Your task to perform on an android device: open app "DuckDuckGo Privacy Browser" (install if not already installed) Image 0: 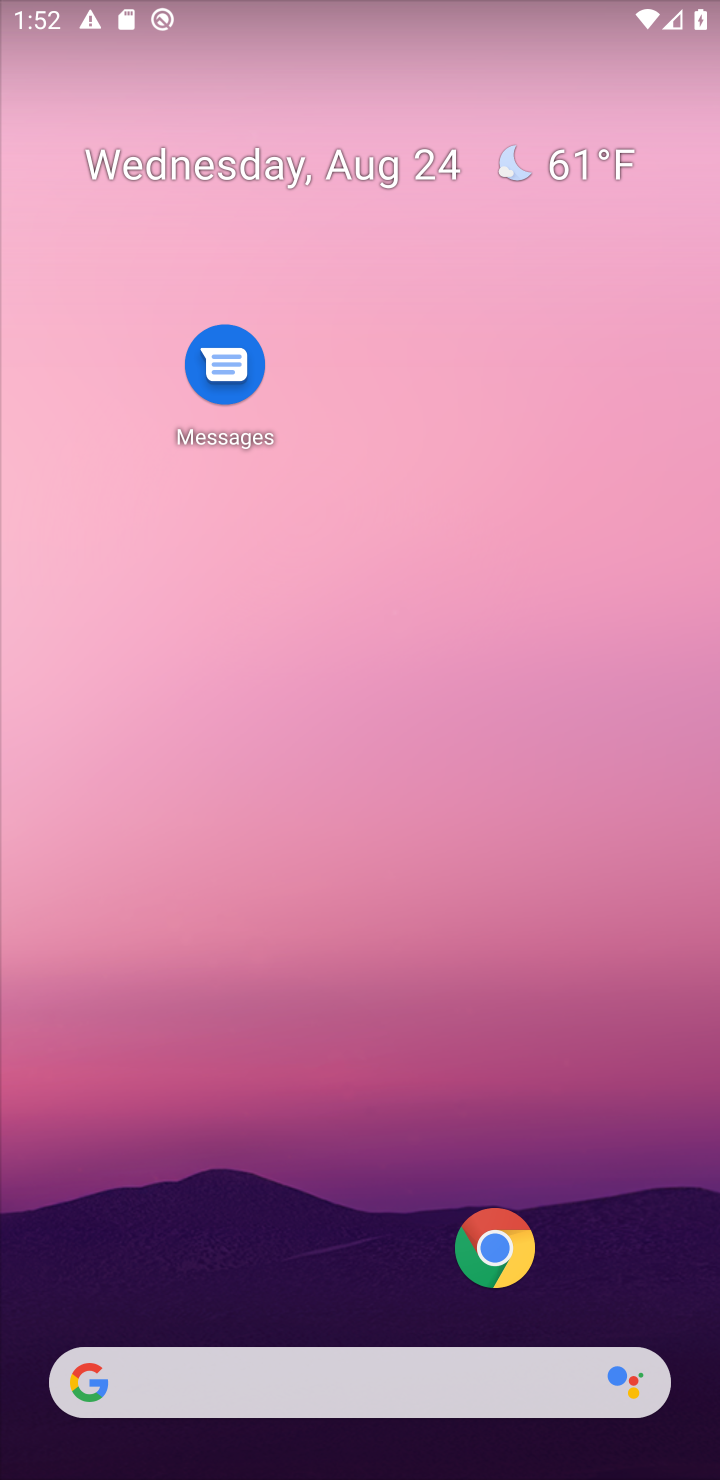
Step 0: drag from (178, 1245) to (351, 322)
Your task to perform on an android device: open app "DuckDuckGo Privacy Browser" (install if not already installed) Image 1: 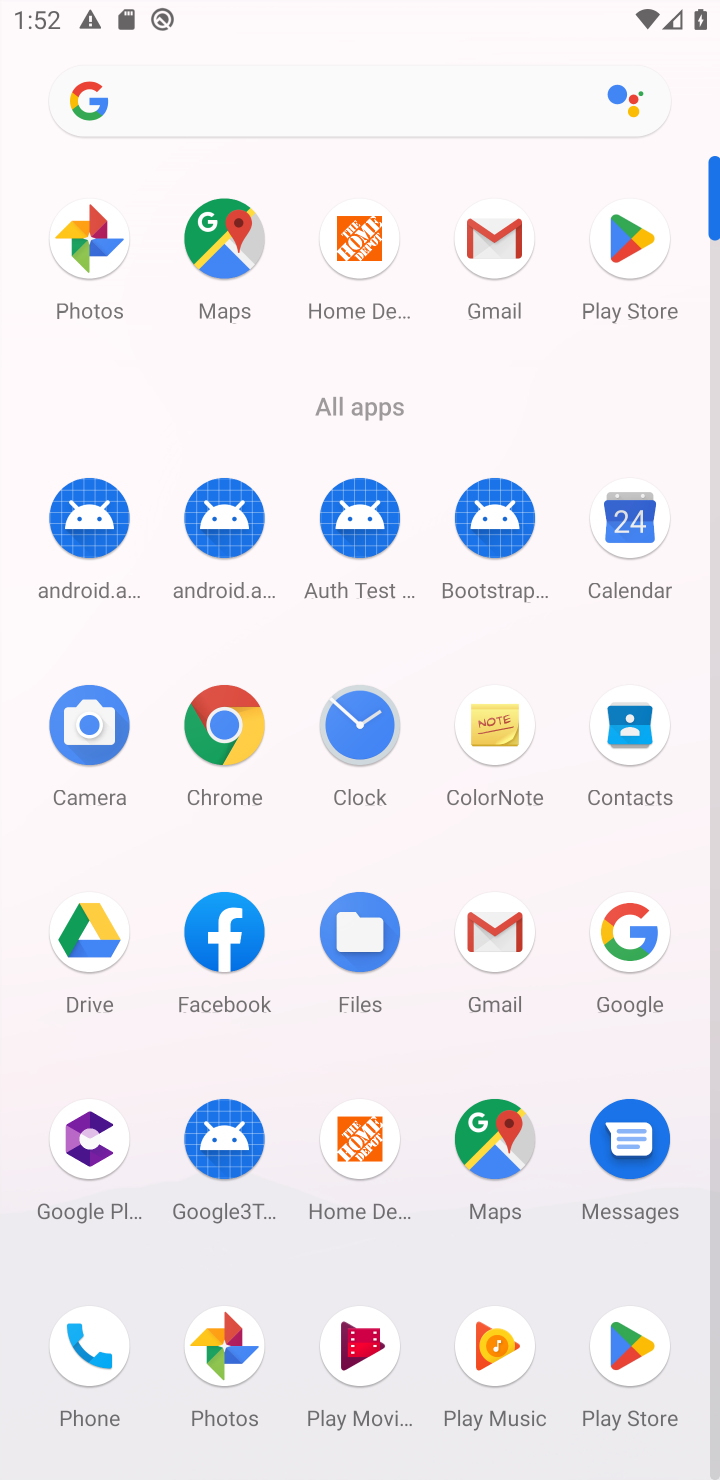
Step 1: click (628, 265)
Your task to perform on an android device: open app "DuckDuckGo Privacy Browser" (install if not already installed) Image 2: 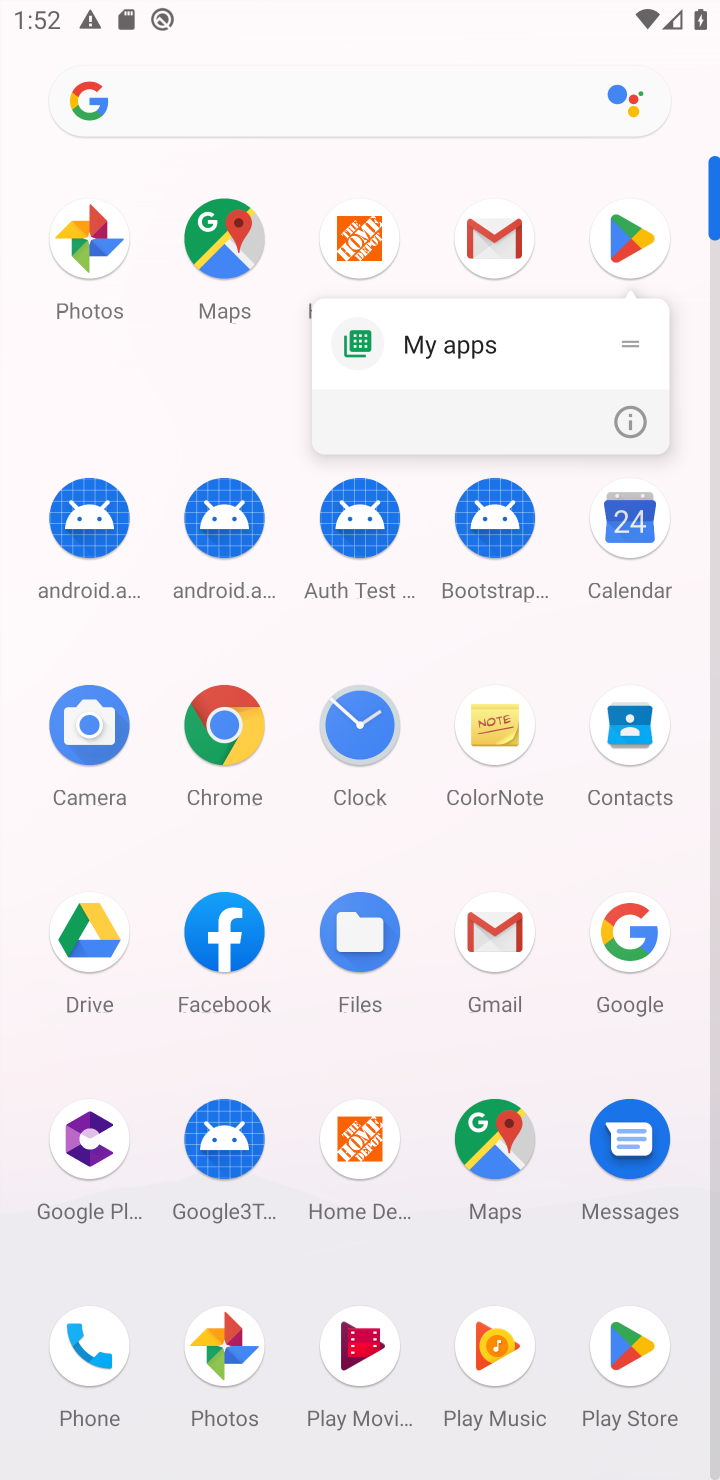
Step 2: click (611, 263)
Your task to perform on an android device: open app "DuckDuckGo Privacy Browser" (install if not already installed) Image 3: 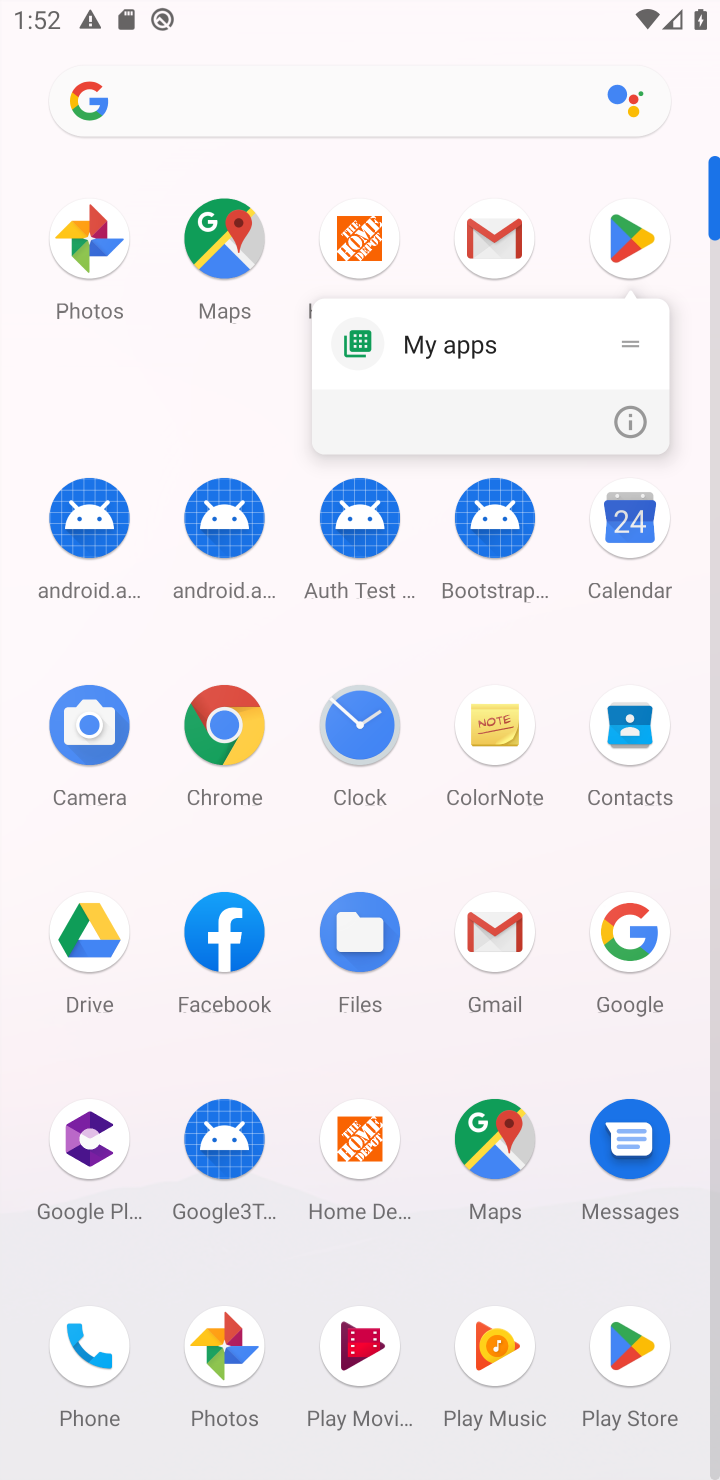
Step 3: click (619, 243)
Your task to perform on an android device: open app "DuckDuckGo Privacy Browser" (install if not already installed) Image 4: 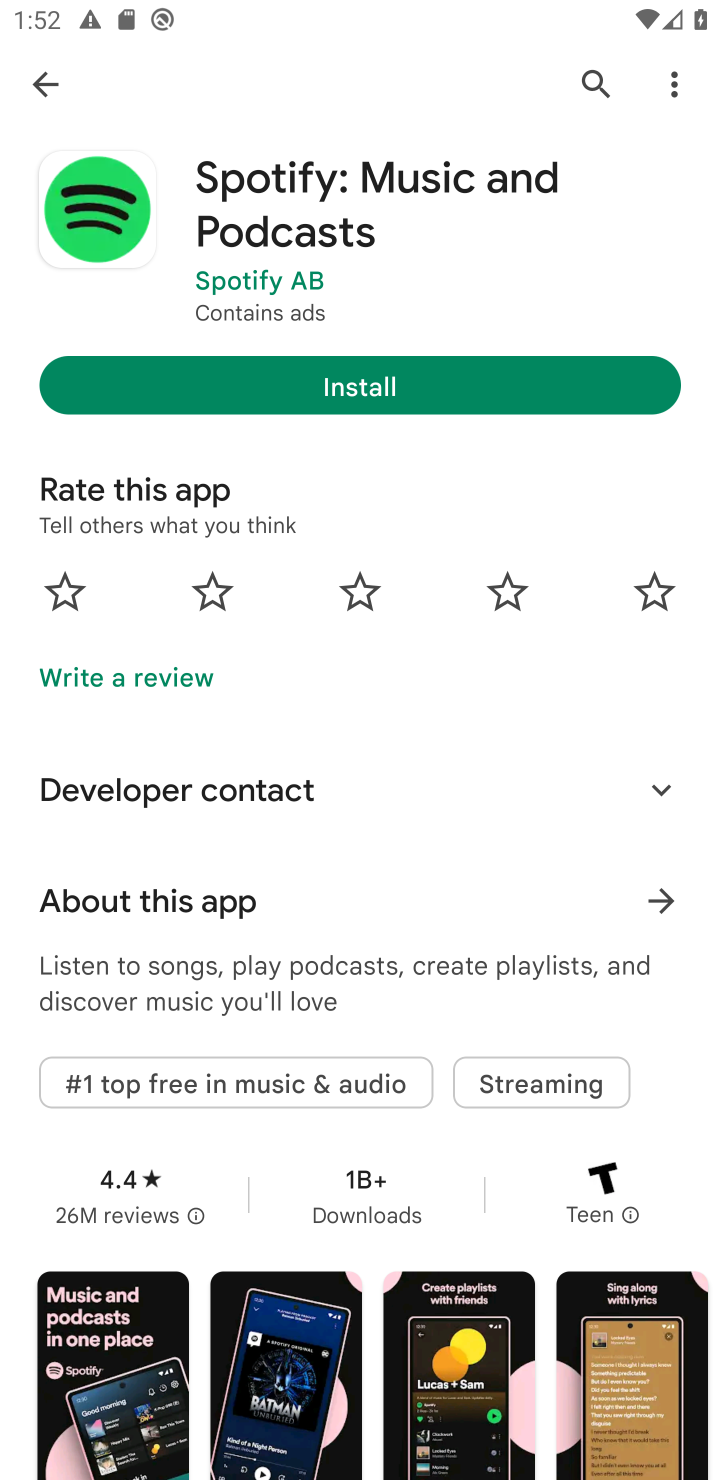
Step 4: click (53, 72)
Your task to perform on an android device: open app "DuckDuckGo Privacy Browser" (install if not already installed) Image 5: 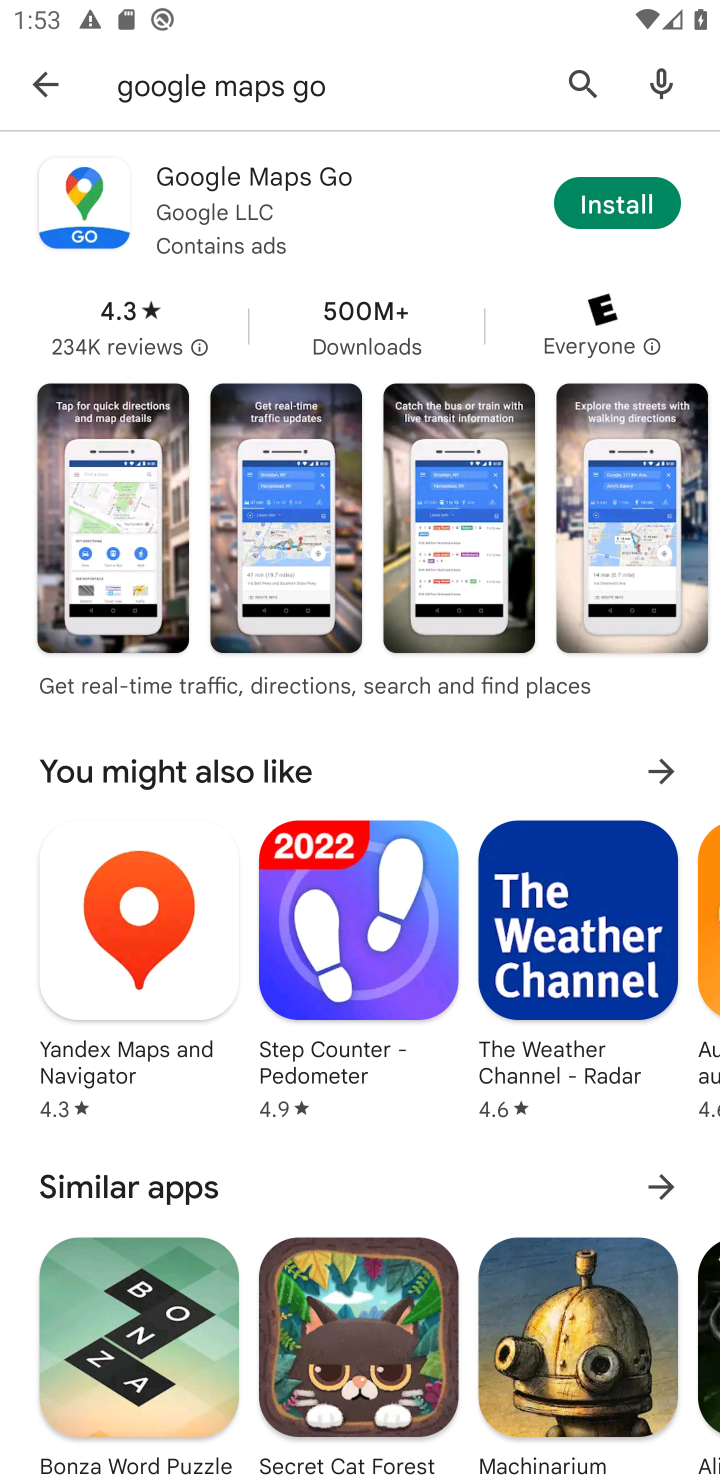
Step 5: click (577, 80)
Your task to perform on an android device: open app "DuckDuckGo Privacy Browser" (install if not already installed) Image 6: 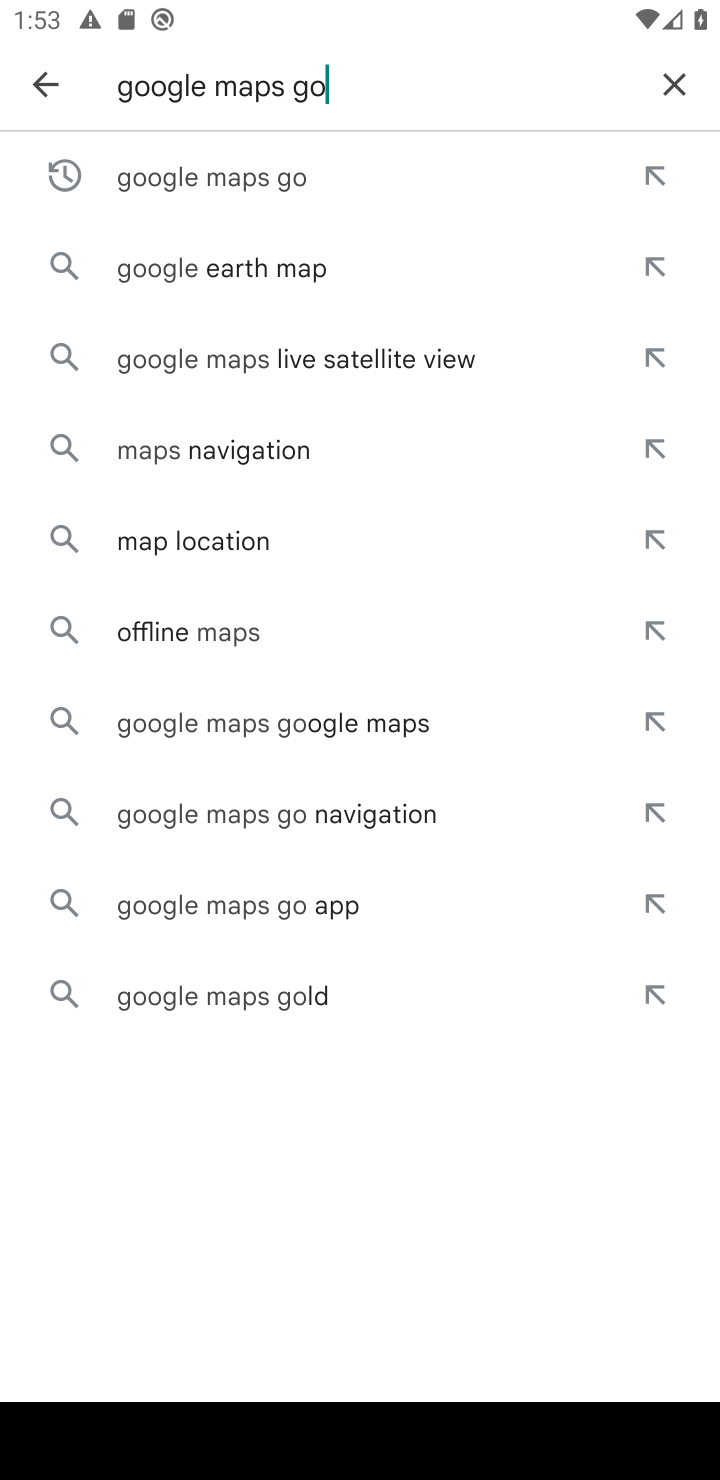
Step 6: click (662, 73)
Your task to perform on an android device: open app "DuckDuckGo Privacy Browser" (install if not already installed) Image 7: 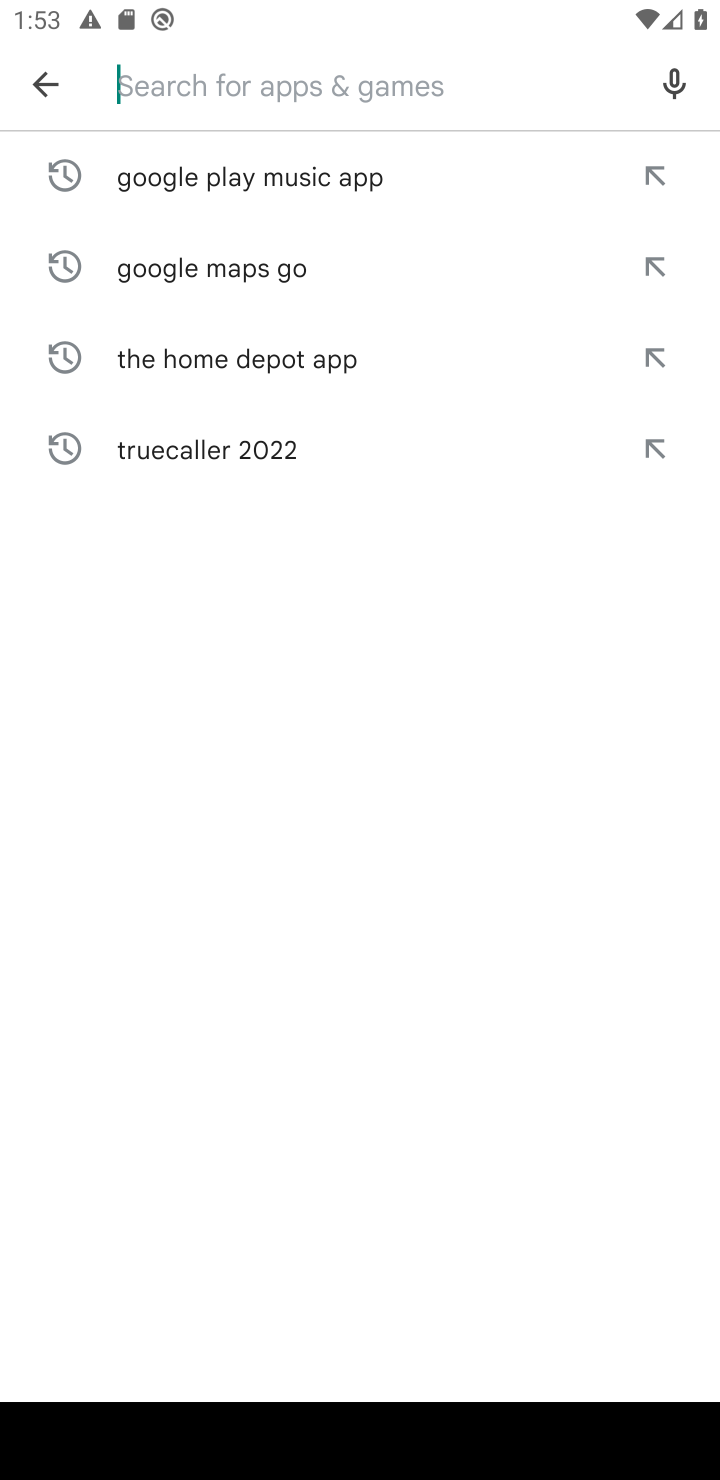
Step 7: click (222, 58)
Your task to perform on an android device: open app "DuckDuckGo Privacy Browser" (install if not already installed) Image 8: 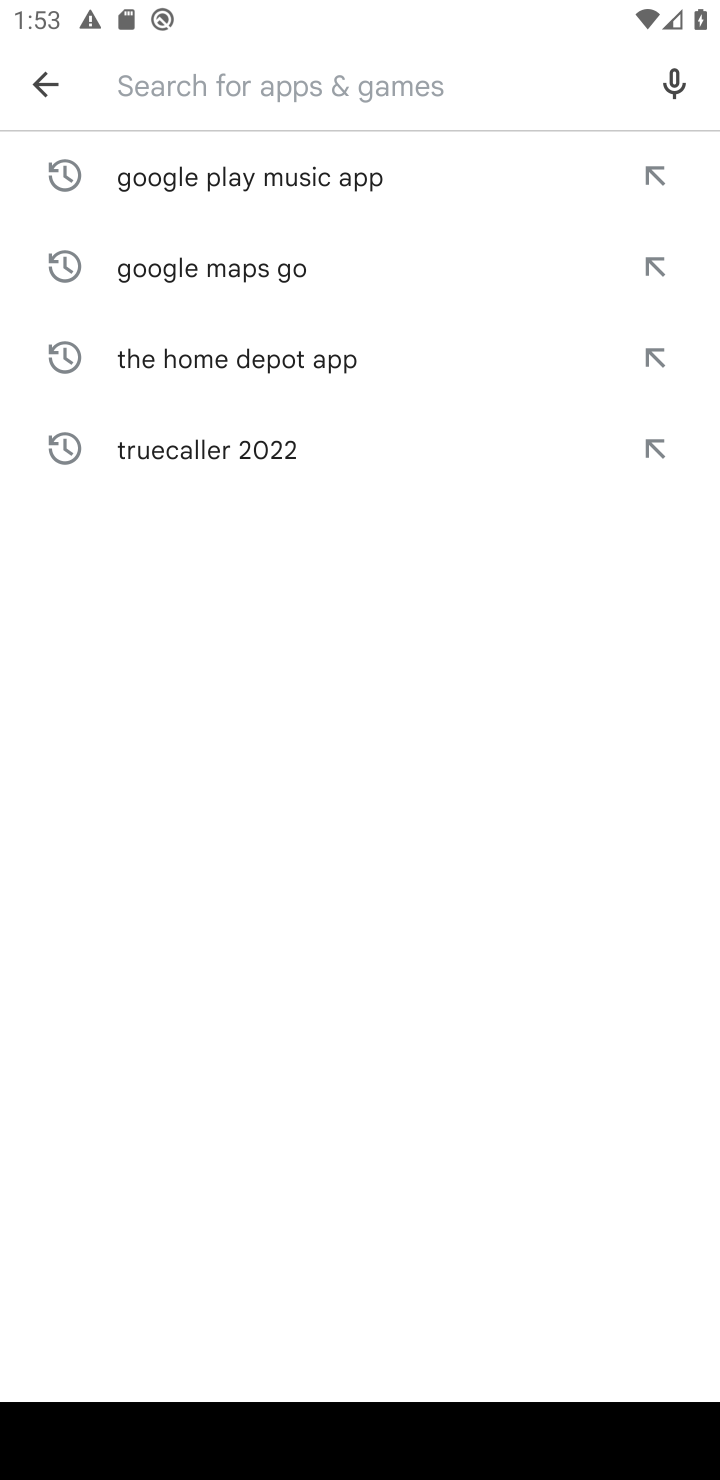
Step 8: type "DuckDuckGo Privacy Browse "
Your task to perform on an android device: open app "DuckDuckGo Privacy Browser" (install if not already installed) Image 9: 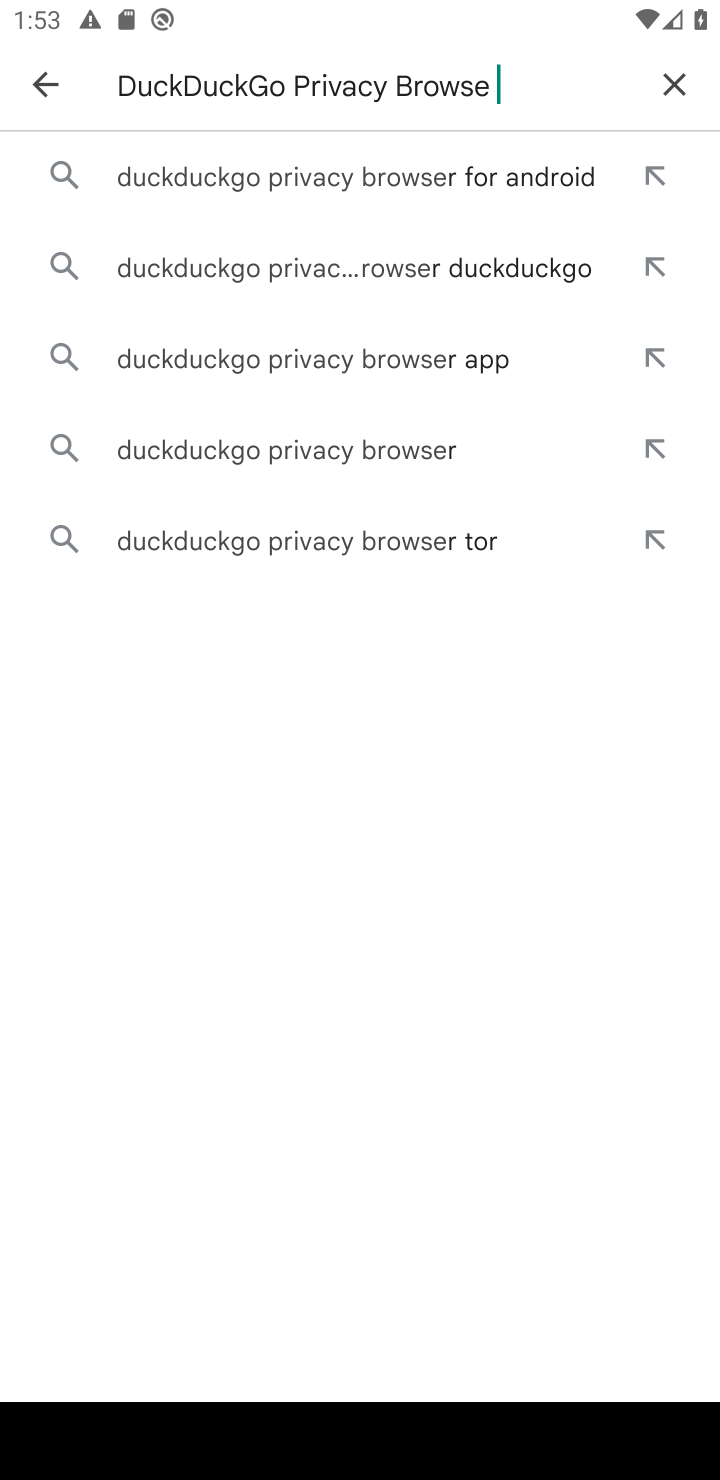
Step 9: click (368, 180)
Your task to perform on an android device: open app "DuckDuckGo Privacy Browser" (install if not already installed) Image 10: 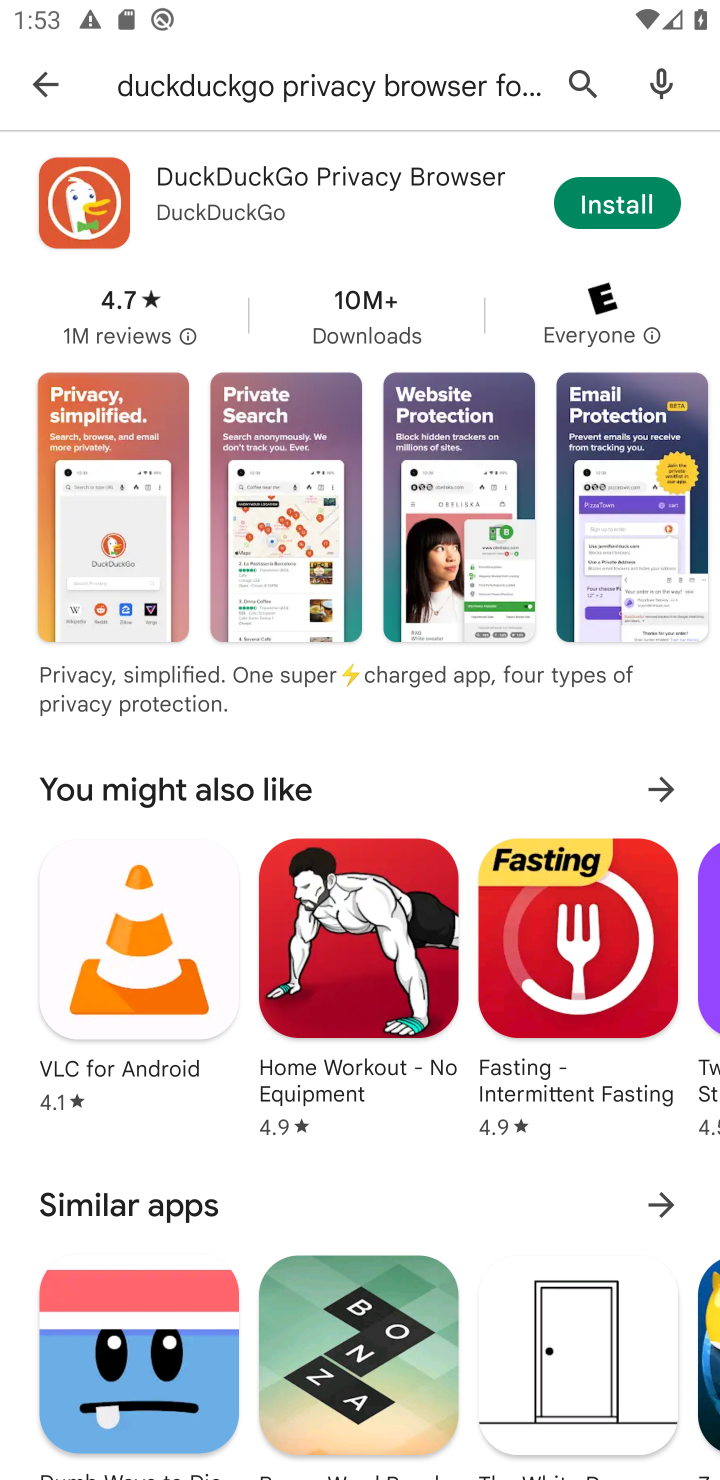
Step 10: click (624, 197)
Your task to perform on an android device: open app "DuckDuckGo Privacy Browser" (install if not already installed) Image 11: 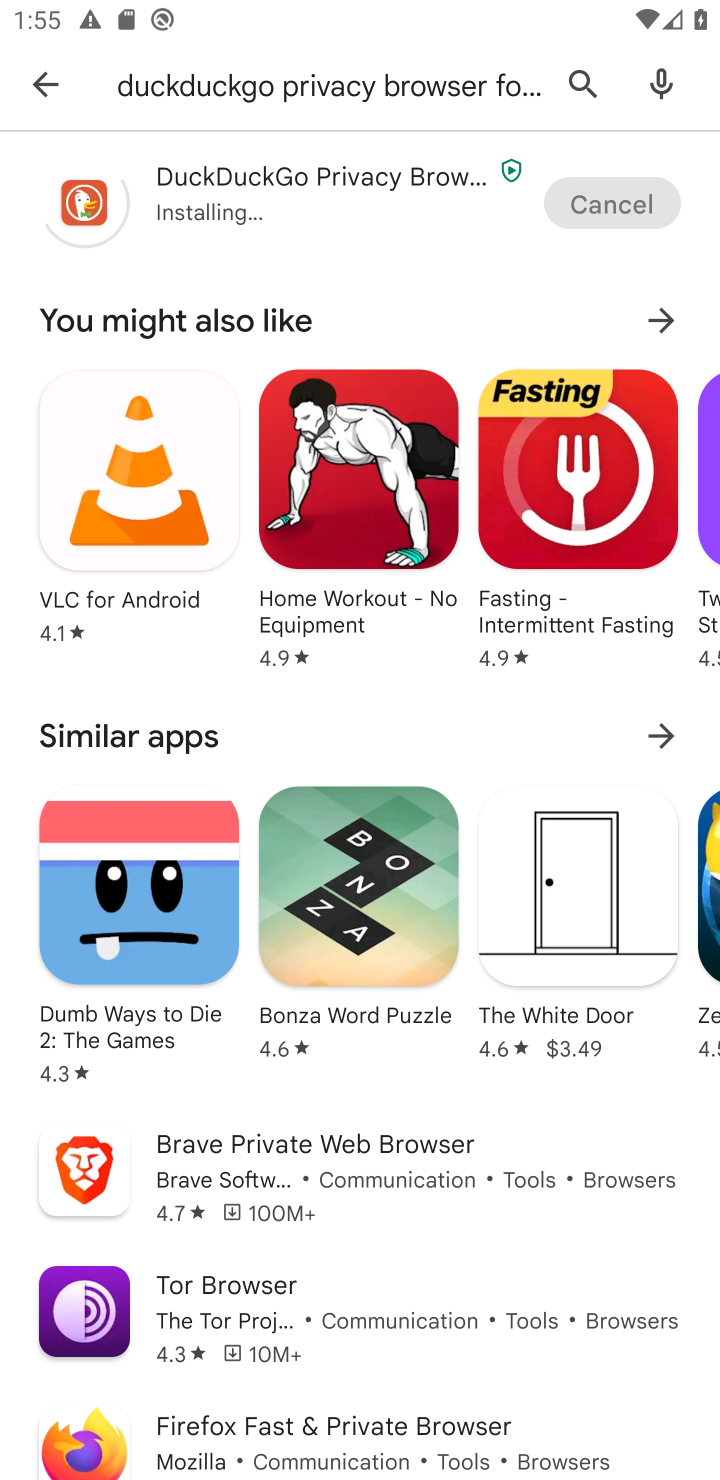
Step 11: task complete